Your task to perform on an android device: check storage Image 0: 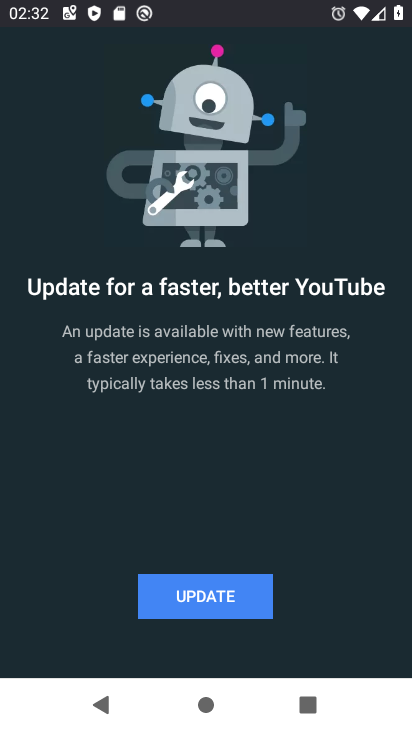
Step 0: press home button
Your task to perform on an android device: check storage Image 1: 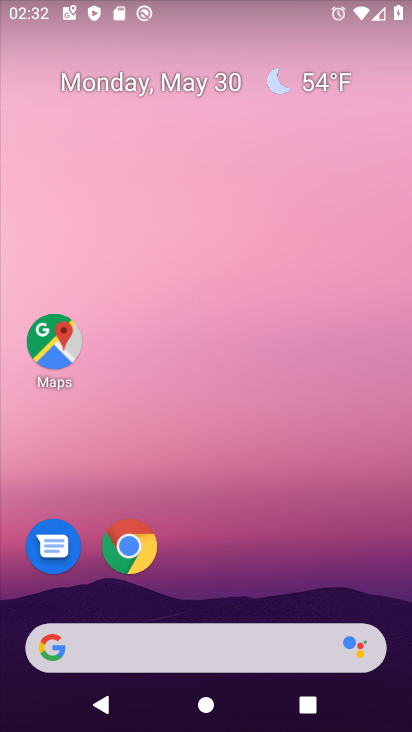
Step 1: drag from (192, 598) to (219, 93)
Your task to perform on an android device: check storage Image 2: 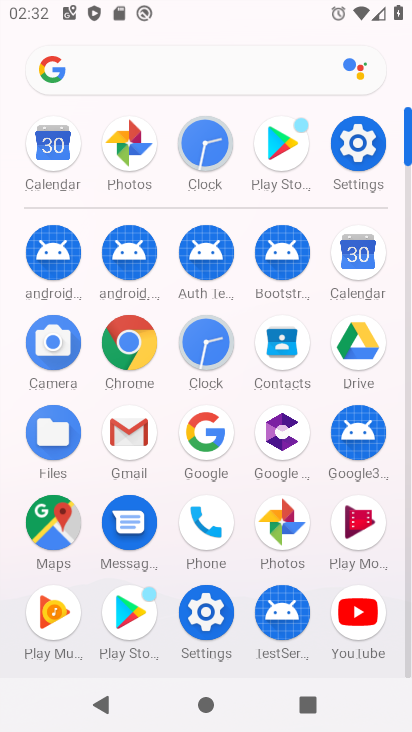
Step 2: click (203, 609)
Your task to perform on an android device: check storage Image 3: 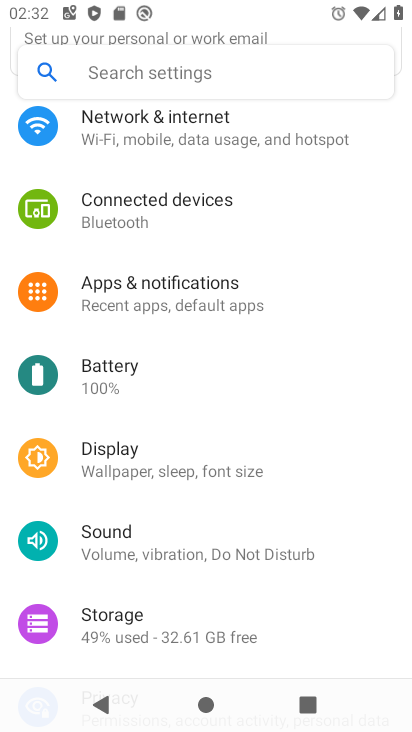
Step 3: click (150, 611)
Your task to perform on an android device: check storage Image 4: 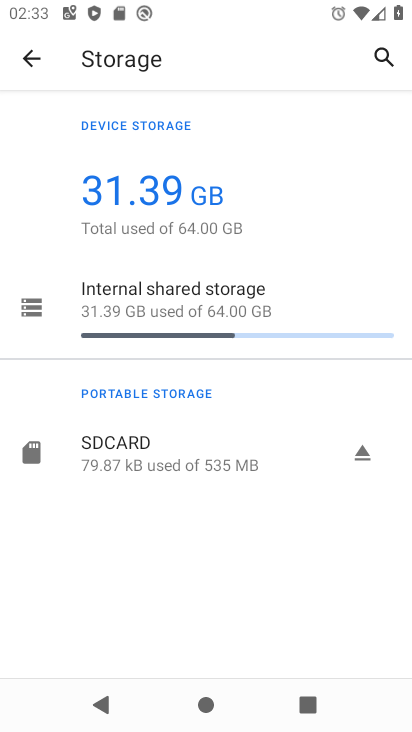
Step 4: task complete